Your task to perform on an android device: Open the calendar app, open the side menu, and click the "Day" option Image 0: 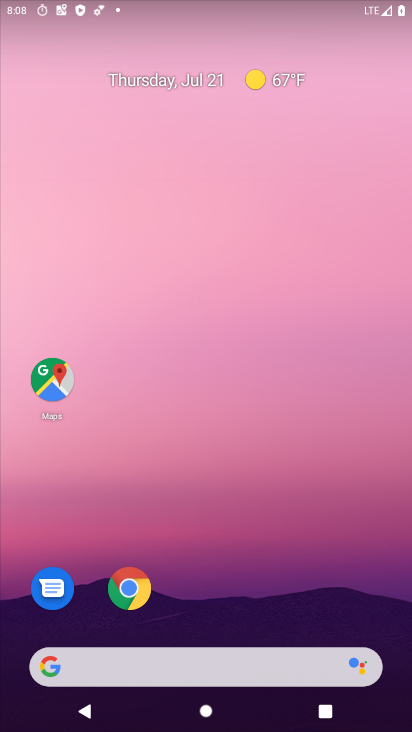
Step 0: drag from (229, 649) to (214, 243)
Your task to perform on an android device: Open the calendar app, open the side menu, and click the "Day" option Image 1: 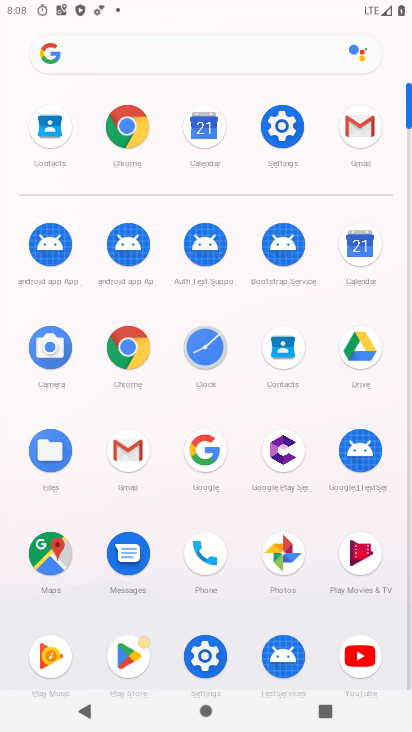
Step 1: click (358, 254)
Your task to perform on an android device: Open the calendar app, open the side menu, and click the "Day" option Image 2: 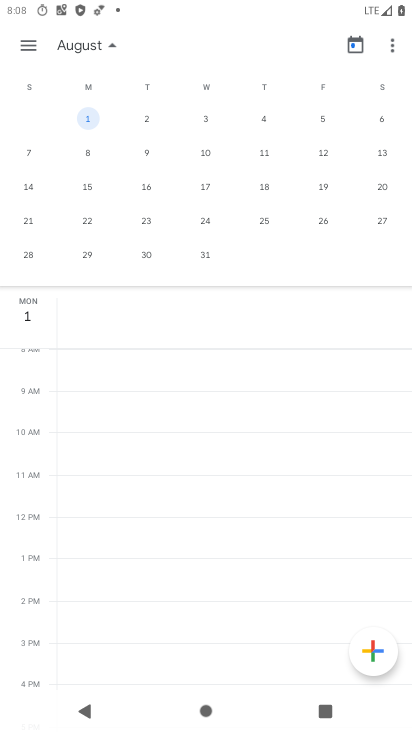
Step 2: drag from (72, 157) to (396, 117)
Your task to perform on an android device: Open the calendar app, open the side menu, and click the "Day" option Image 3: 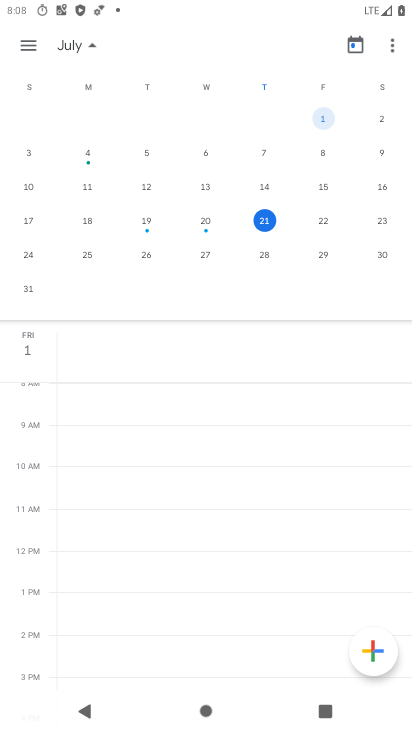
Step 3: click (33, 46)
Your task to perform on an android device: Open the calendar app, open the side menu, and click the "Day" option Image 4: 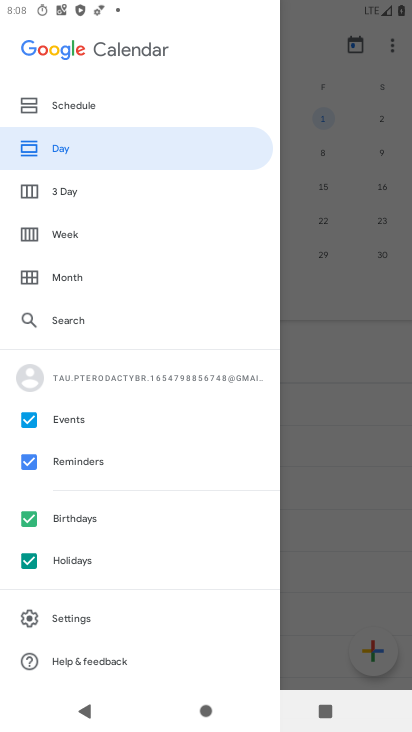
Step 4: click (62, 154)
Your task to perform on an android device: Open the calendar app, open the side menu, and click the "Day" option Image 5: 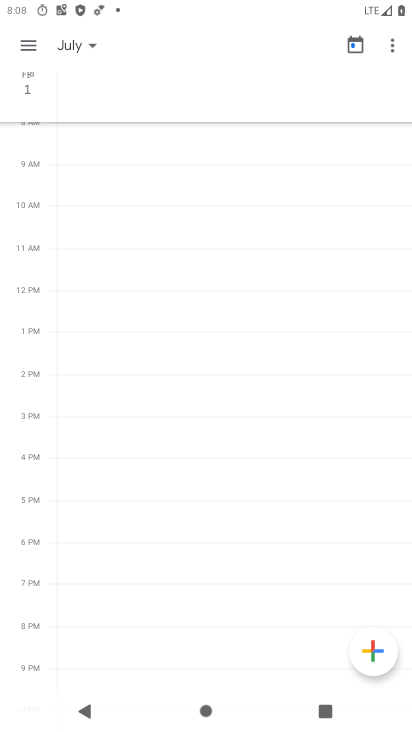
Step 5: task complete